Your task to perform on an android device: toggle data saver in the chrome app Image 0: 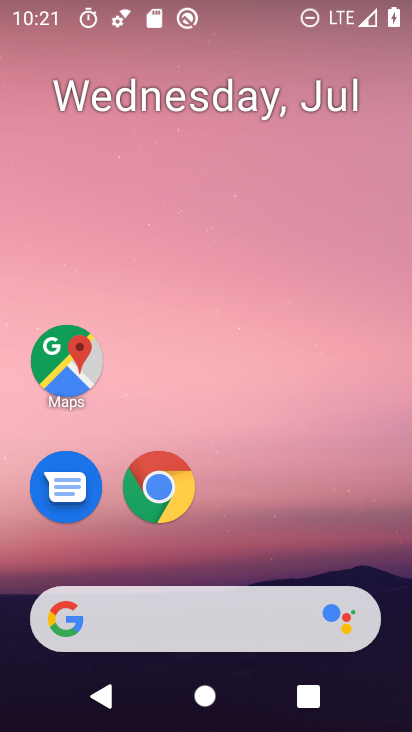
Step 0: drag from (367, 541) to (363, 206)
Your task to perform on an android device: toggle data saver in the chrome app Image 1: 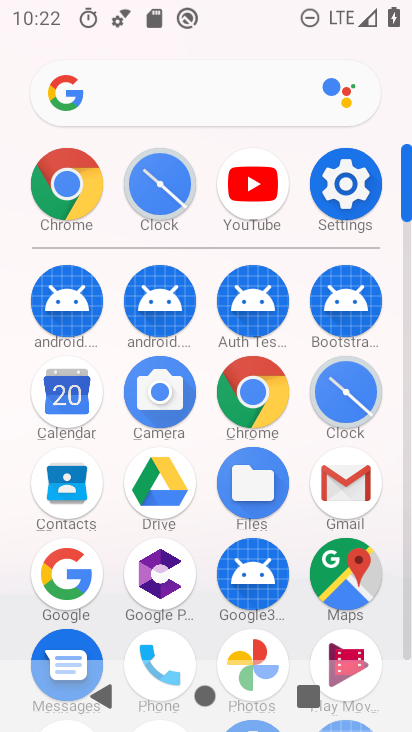
Step 1: click (247, 397)
Your task to perform on an android device: toggle data saver in the chrome app Image 2: 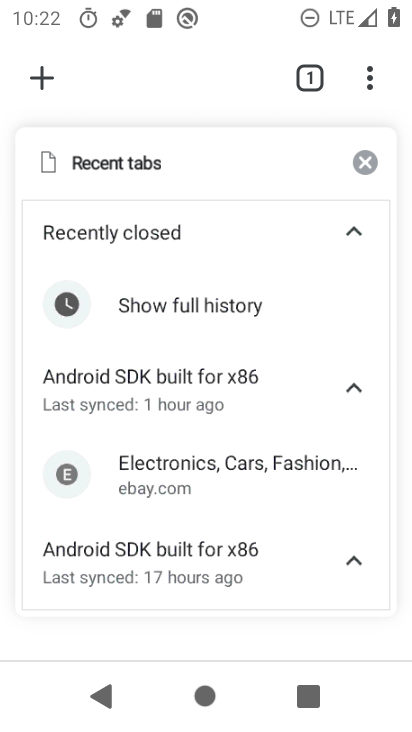
Step 2: press back button
Your task to perform on an android device: toggle data saver in the chrome app Image 3: 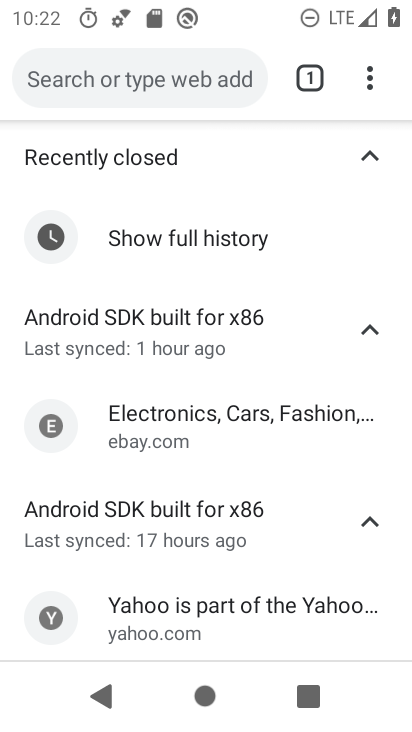
Step 3: click (367, 77)
Your task to perform on an android device: toggle data saver in the chrome app Image 4: 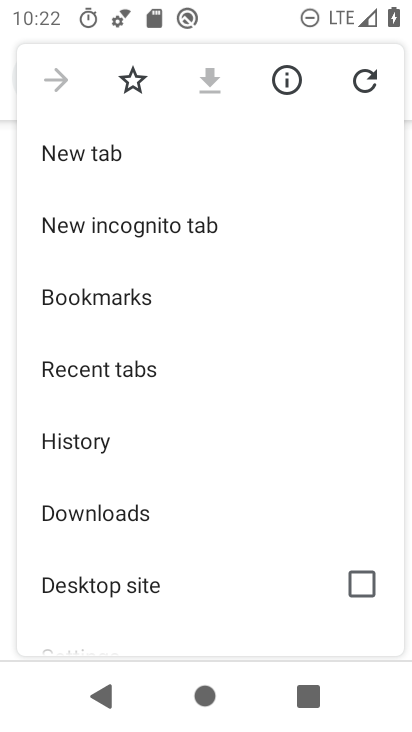
Step 4: drag from (291, 401) to (294, 325)
Your task to perform on an android device: toggle data saver in the chrome app Image 5: 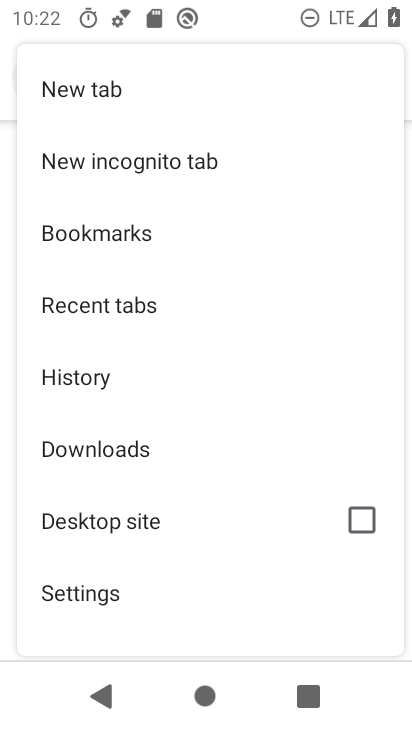
Step 5: drag from (254, 439) to (271, 291)
Your task to perform on an android device: toggle data saver in the chrome app Image 6: 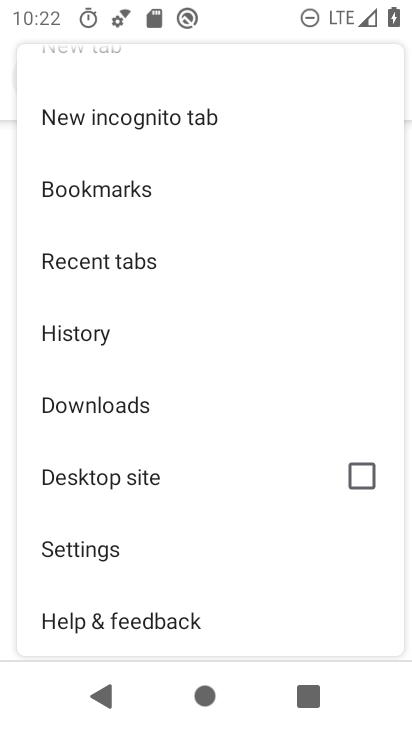
Step 6: drag from (247, 236) to (235, 403)
Your task to perform on an android device: toggle data saver in the chrome app Image 7: 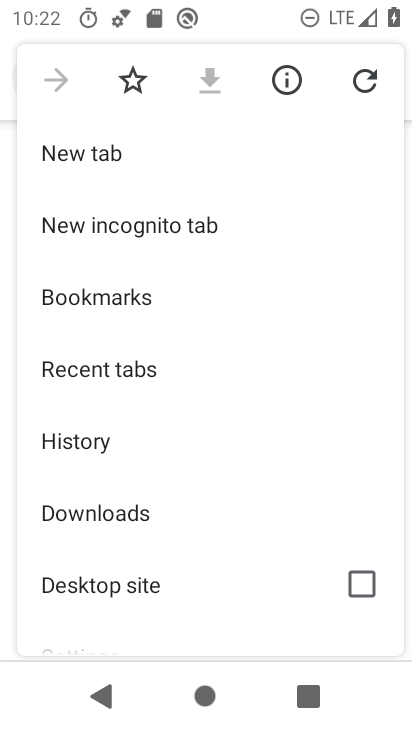
Step 7: drag from (206, 522) to (263, 267)
Your task to perform on an android device: toggle data saver in the chrome app Image 8: 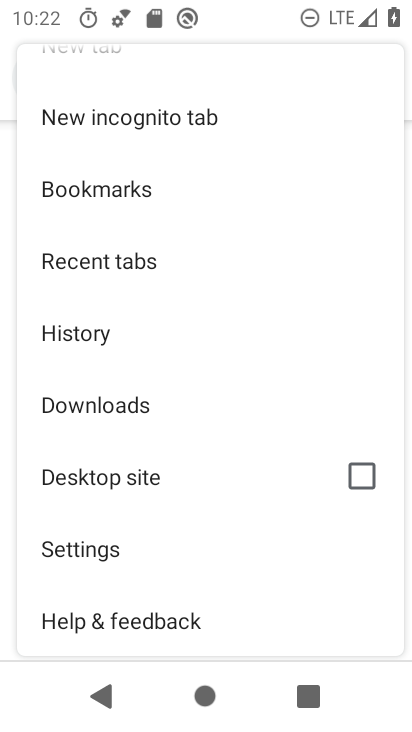
Step 8: click (149, 547)
Your task to perform on an android device: toggle data saver in the chrome app Image 9: 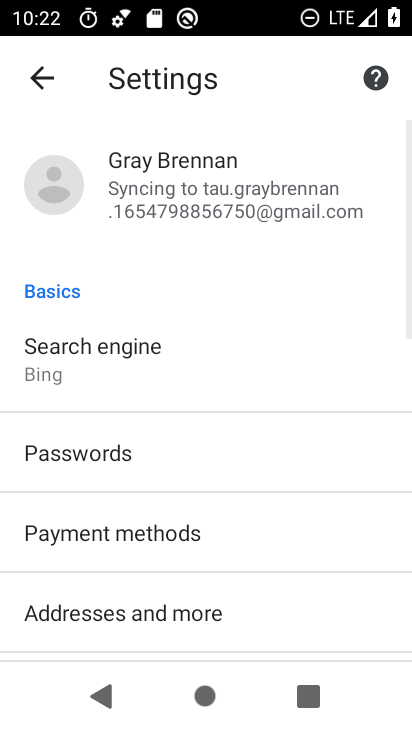
Step 9: drag from (310, 562) to (316, 389)
Your task to perform on an android device: toggle data saver in the chrome app Image 10: 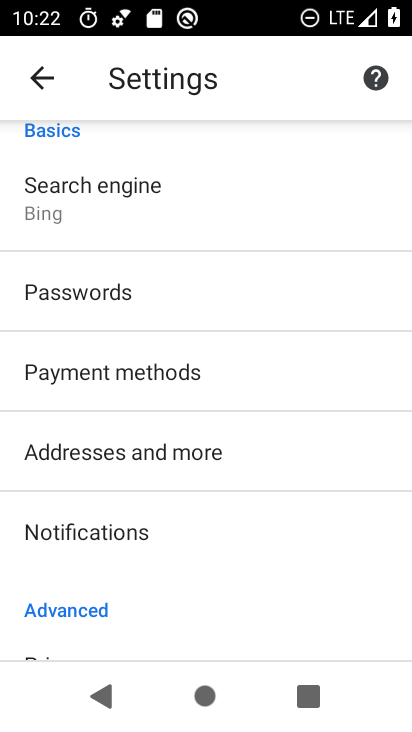
Step 10: drag from (295, 521) to (320, 392)
Your task to perform on an android device: toggle data saver in the chrome app Image 11: 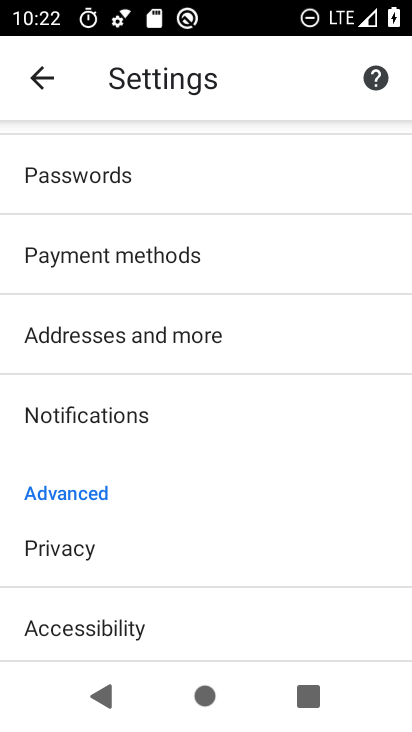
Step 11: drag from (303, 555) to (332, 261)
Your task to perform on an android device: toggle data saver in the chrome app Image 12: 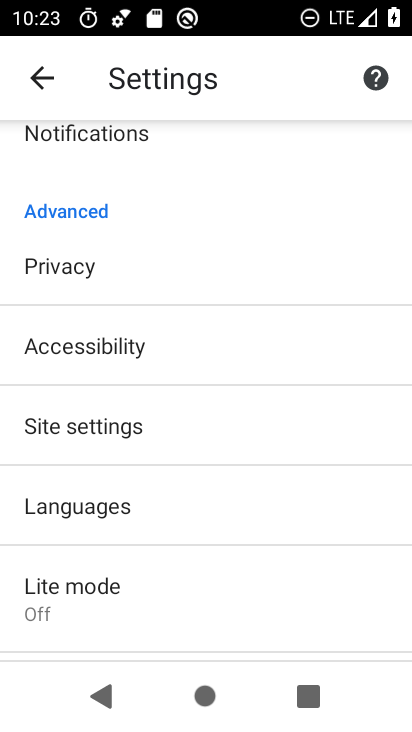
Step 12: click (217, 587)
Your task to perform on an android device: toggle data saver in the chrome app Image 13: 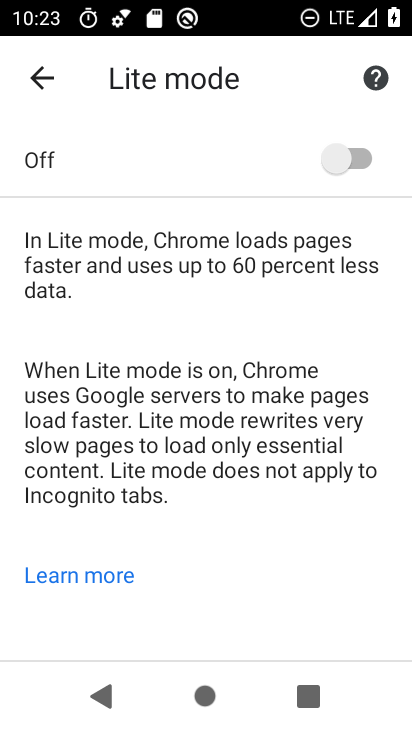
Step 13: click (351, 161)
Your task to perform on an android device: toggle data saver in the chrome app Image 14: 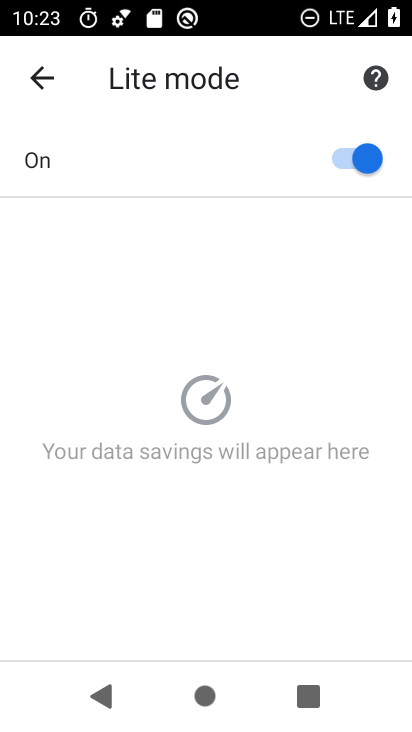
Step 14: task complete